Your task to perform on an android device: turn off priority inbox in the gmail app Image 0: 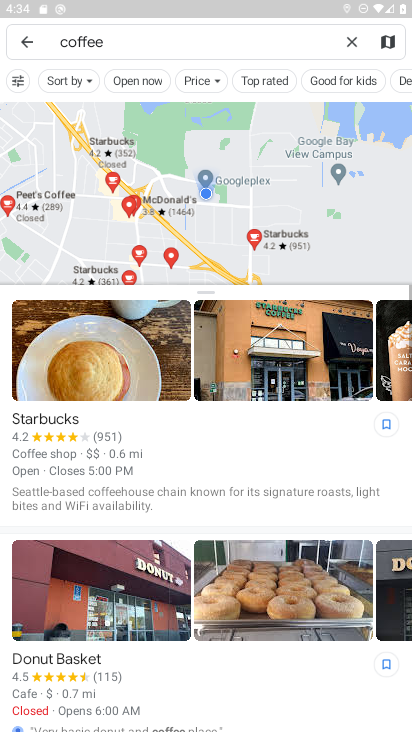
Step 0: press home button
Your task to perform on an android device: turn off priority inbox in the gmail app Image 1: 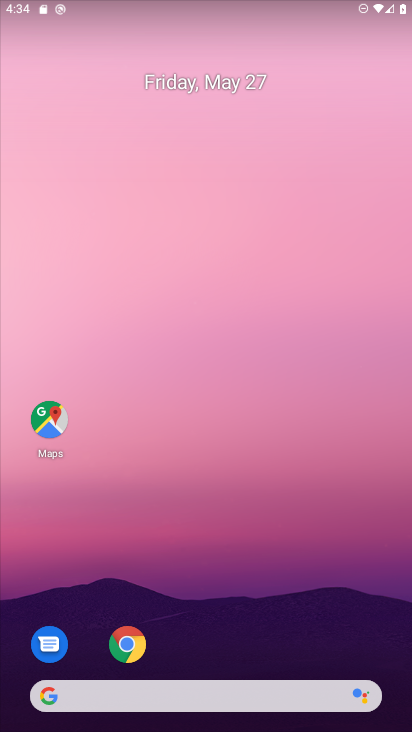
Step 1: drag from (202, 644) to (224, 180)
Your task to perform on an android device: turn off priority inbox in the gmail app Image 2: 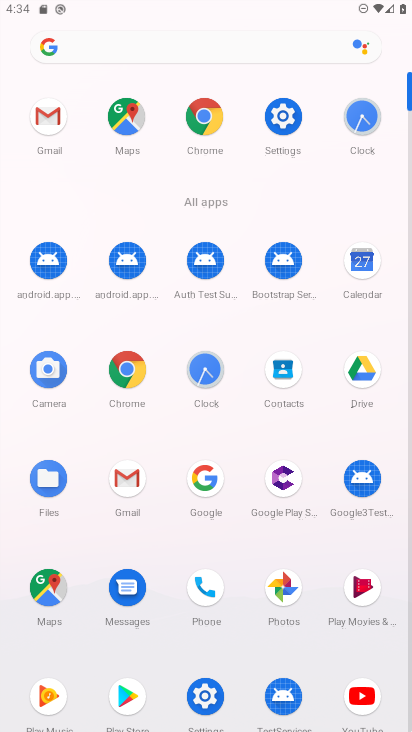
Step 2: click (42, 109)
Your task to perform on an android device: turn off priority inbox in the gmail app Image 3: 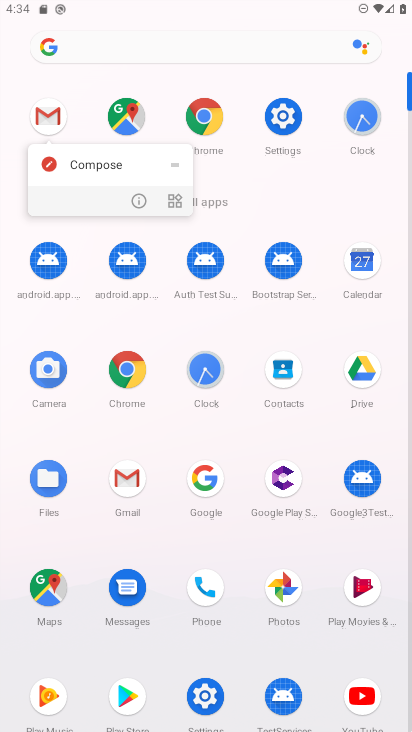
Step 3: click (11, 130)
Your task to perform on an android device: turn off priority inbox in the gmail app Image 4: 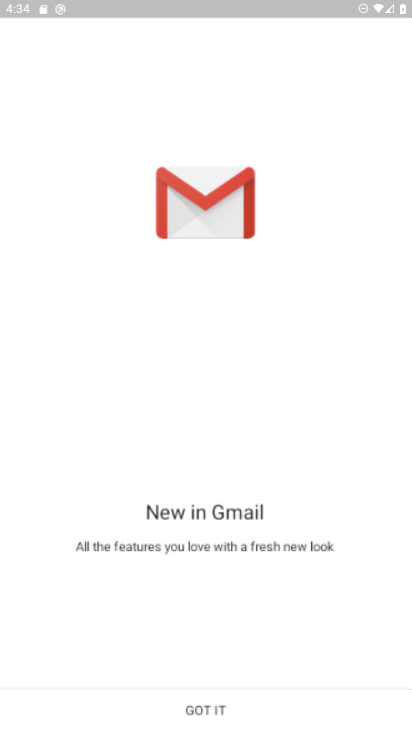
Step 4: click (31, 124)
Your task to perform on an android device: turn off priority inbox in the gmail app Image 5: 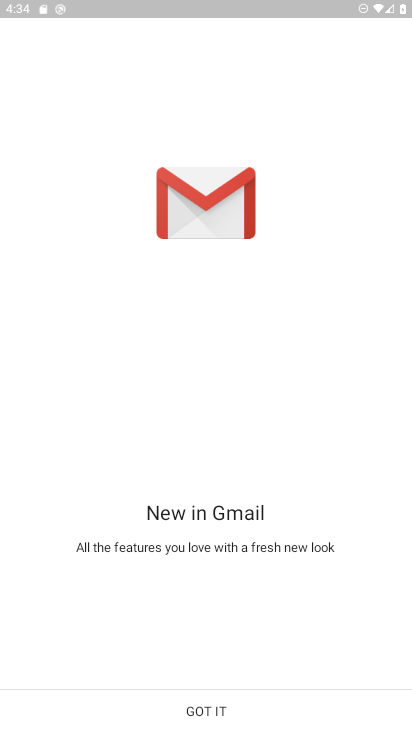
Step 5: click (213, 707)
Your task to perform on an android device: turn off priority inbox in the gmail app Image 6: 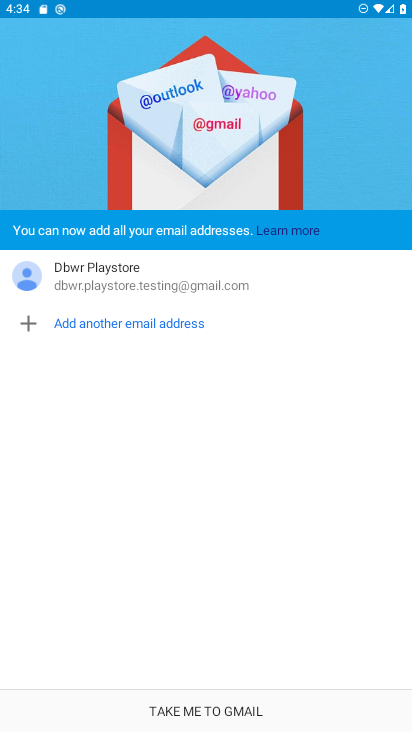
Step 6: click (213, 707)
Your task to perform on an android device: turn off priority inbox in the gmail app Image 7: 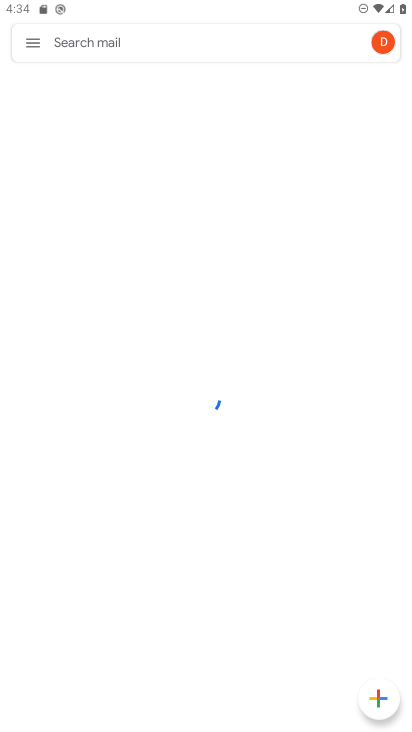
Step 7: click (35, 55)
Your task to perform on an android device: turn off priority inbox in the gmail app Image 8: 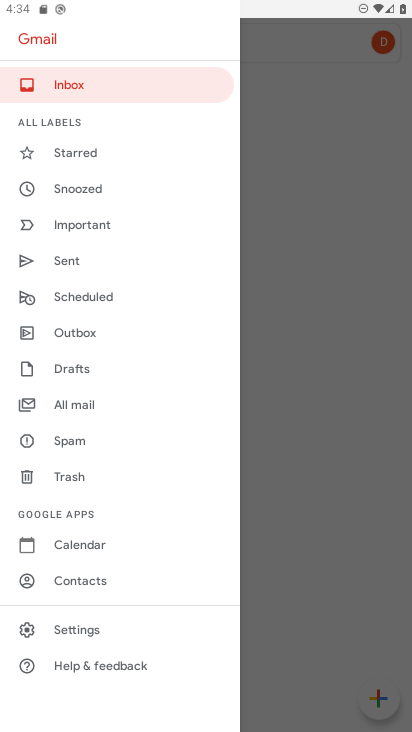
Step 8: click (92, 631)
Your task to perform on an android device: turn off priority inbox in the gmail app Image 9: 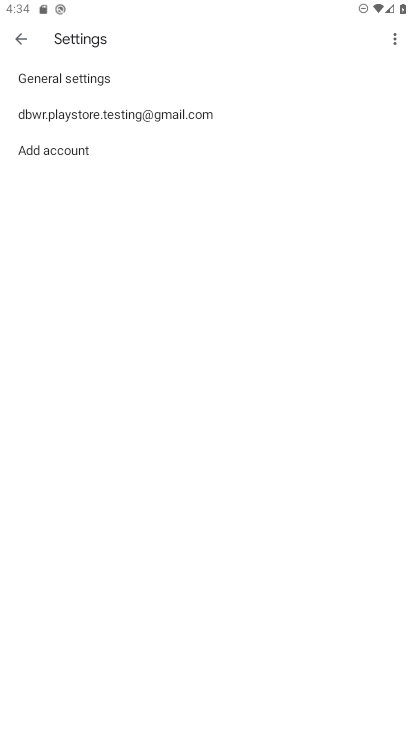
Step 9: click (146, 124)
Your task to perform on an android device: turn off priority inbox in the gmail app Image 10: 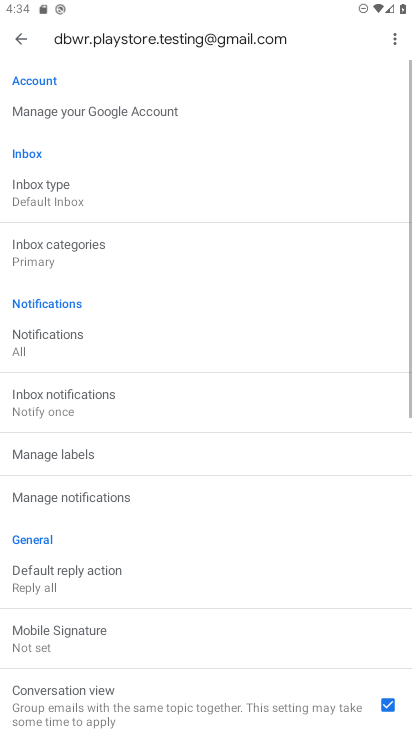
Step 10: click (146, 124)
Your task to perform on an android device: turn off priority inbox in the gmail app Image 11: 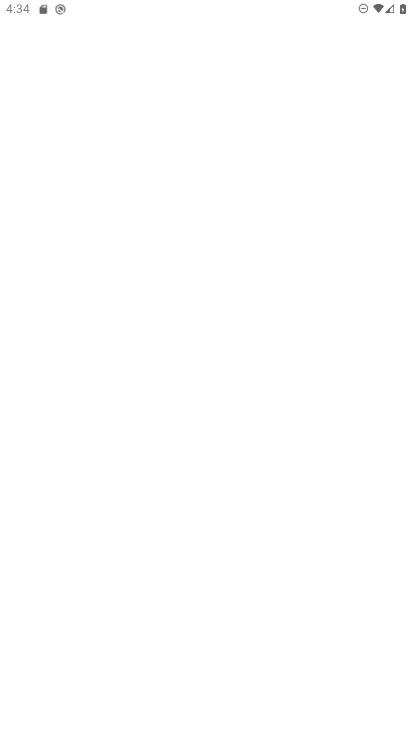
Step 11: click (85, 190)
Your task to perform on an android device: turn off priority inbox in the gmail app Image 12: 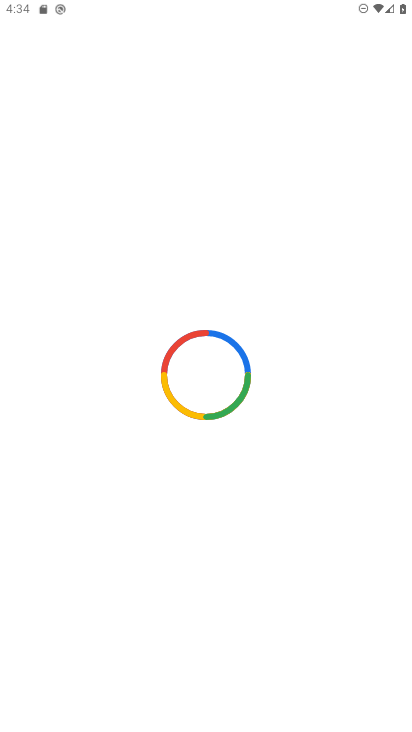
Step 12: press back button
Your task to perform on an android device: turn off priority inbox in the gmail app Image 13: 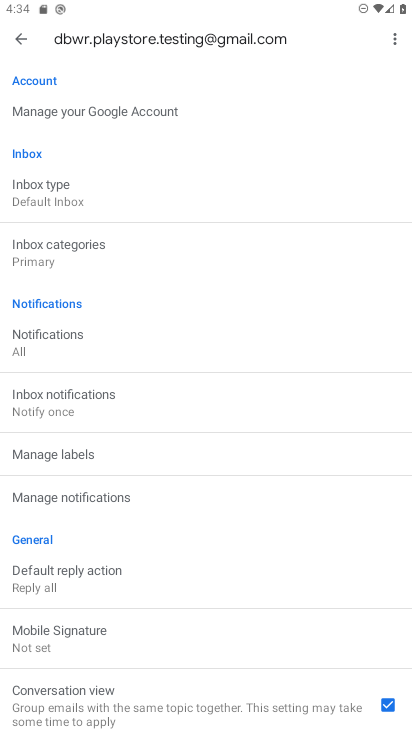
Step 13: click (44, 194)
Your task to perform on an android device: turn off priority inbox in the gmail app Image 14: 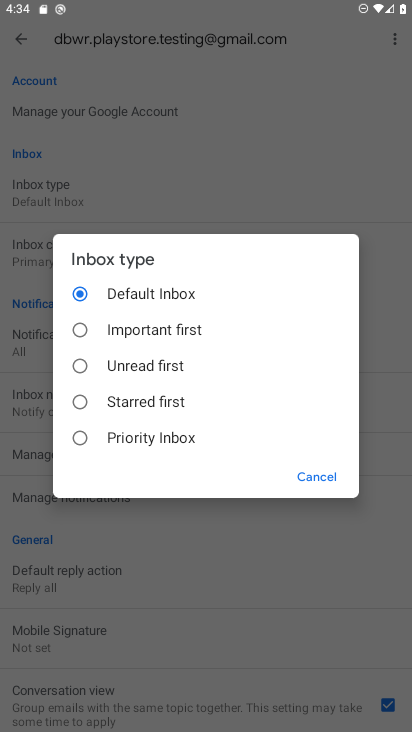
Step 14: task complete